Your task to perform on an android device: Open Android settings Image 0: 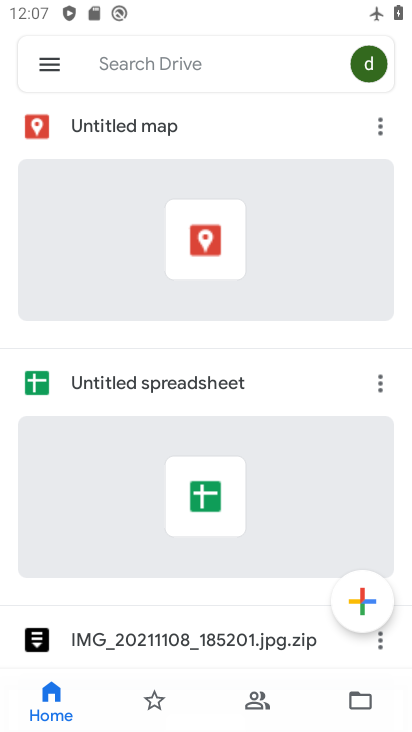
Step 0: press home button
Your task to perform on an android device: Open Android settings Image 1: 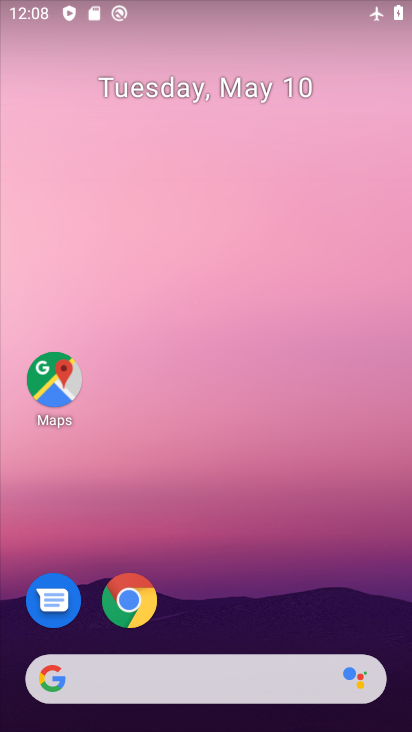
Step 1: drag from (331, 514) to (411, 155)
Your task to perform on an android device: Open Android settings Image 2: 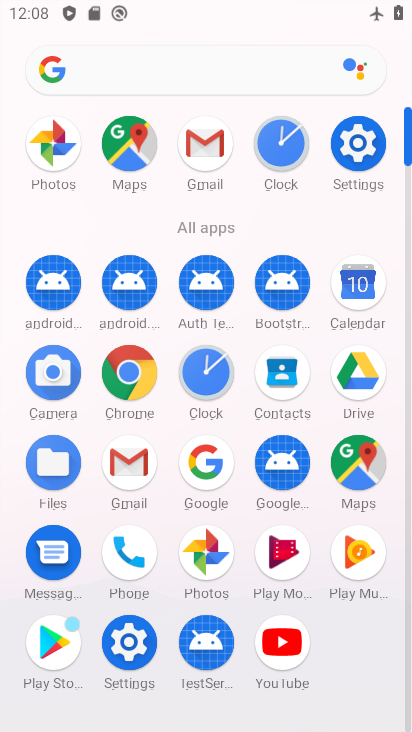
Step 2: click (369, 126)
Your task to perform on an android device: Open Android settings Image 3: 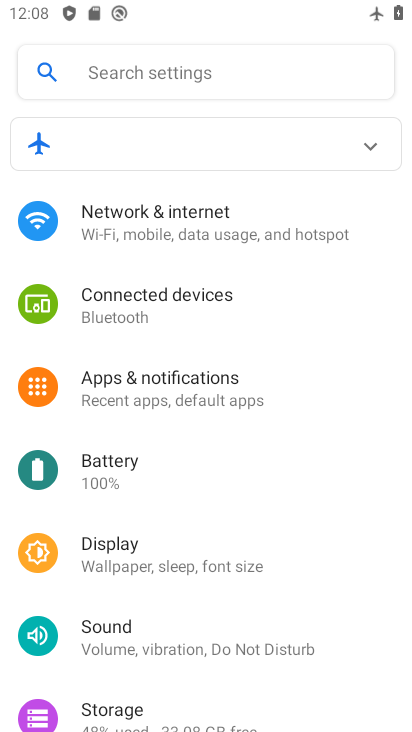
Step 3: drag from (146, 502) to (165, 159)
Your task to perform on an android device: Open Android settings Image 4: 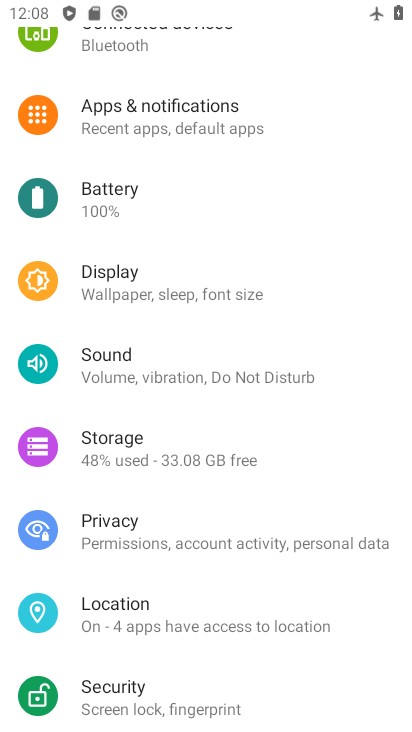
Step 4: drag from (130, 512) to (203, 12)
Your task to perform on an android device: Open Android settings Image 5: 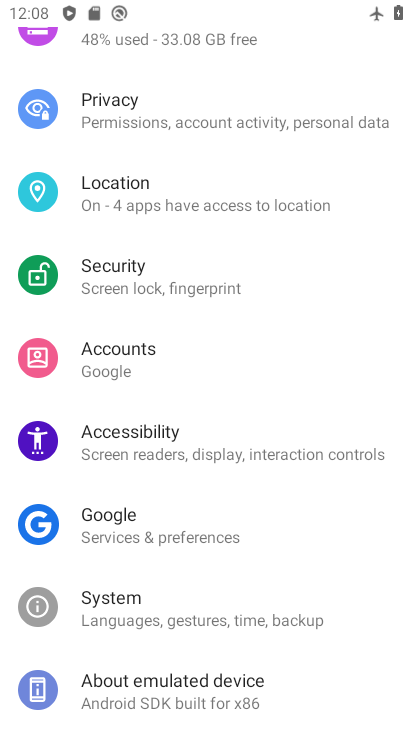
Step 5: click (157, 689)
Your task to perform on an android device: Open Android settings Image 6: 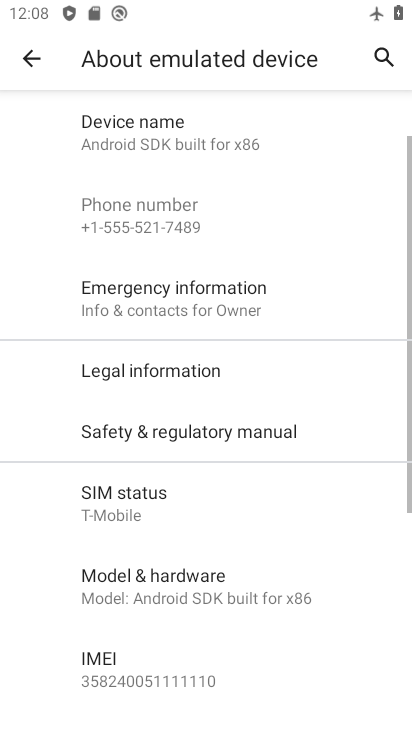
Step 6: drag from (219, 481) to (276, 14)
Your task to perform on an android device: Open Android settings Image 7: 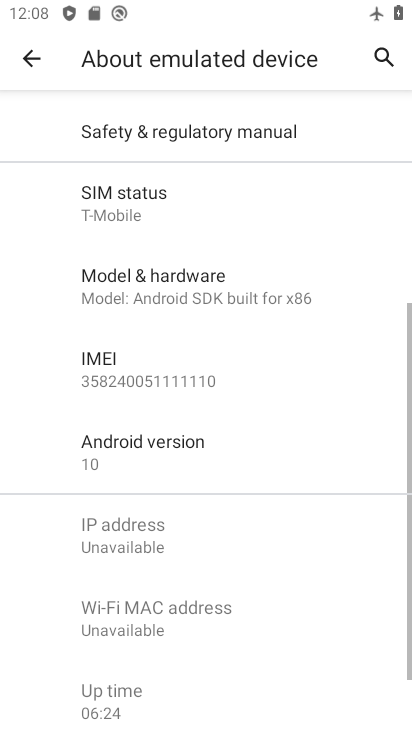
Step 7: click (214, 461)
Your task to perform on an android device: Open Android settings Image 8: 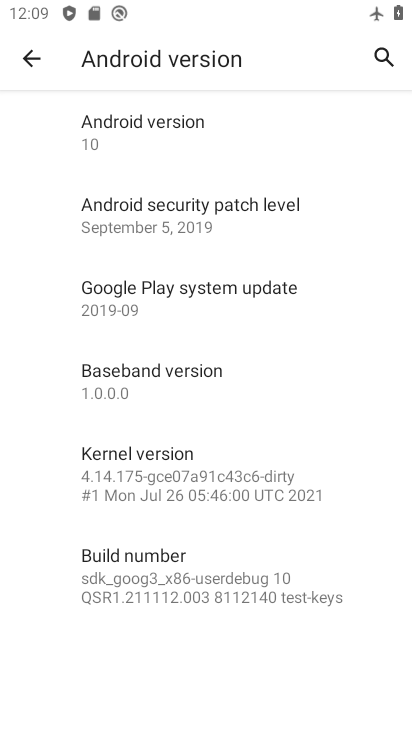
Step 8: task complete